Your task to perform on an android device: open wifi settings Image 0: 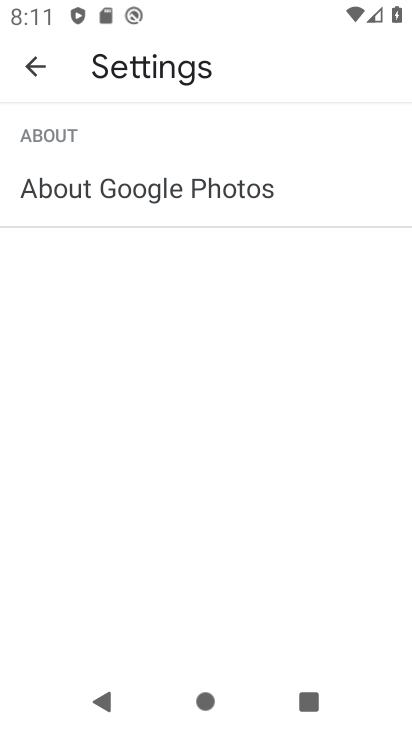
Step 0: press home button
Your task to perform on an android device: open wifi settings Image 1: 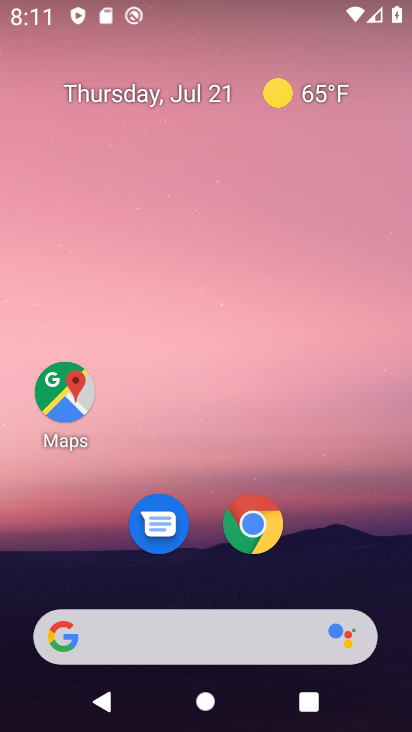
Step 1: drag from (185, 610) to (152, 76)
Your task to perform on an android device: open wifi settings Image 2: 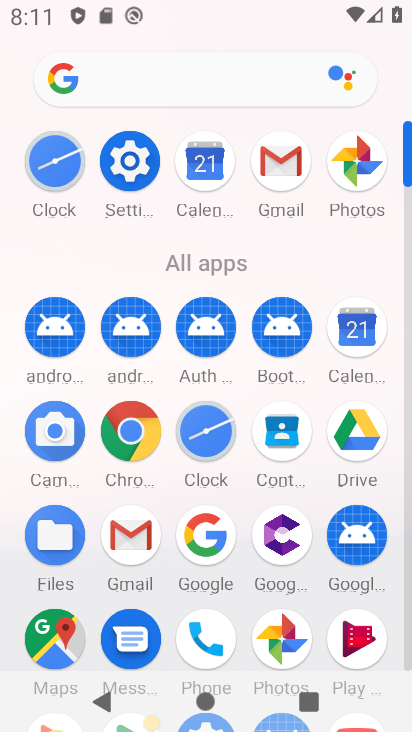
Step 2: click (128, 177)
Your task to perform on an android device: open wifi settings Image 3: 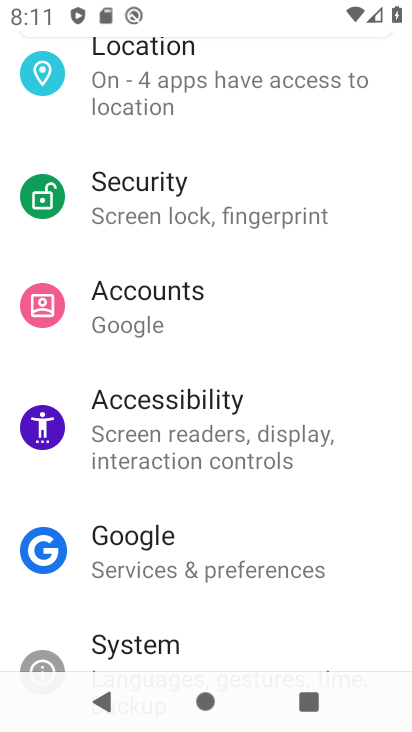
Step 3: drag from (170, 98) to (174, 639)
Your task to perform on an android device: open wifi settings Image 4: 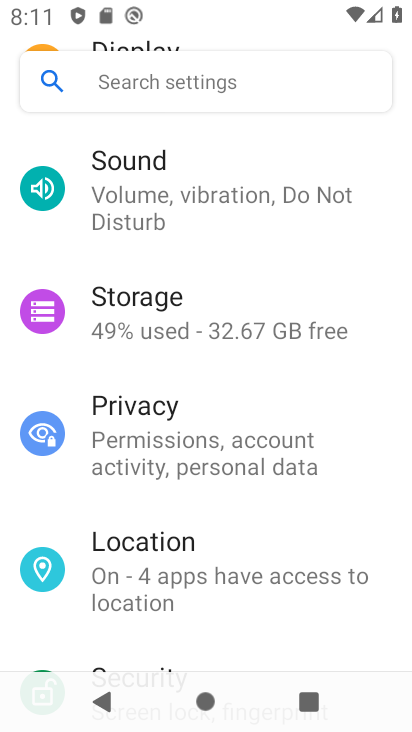
Step 4: drag from (149, 184) to (127, 724)
Your task to perform on an android device: open wifi settings Image 5: 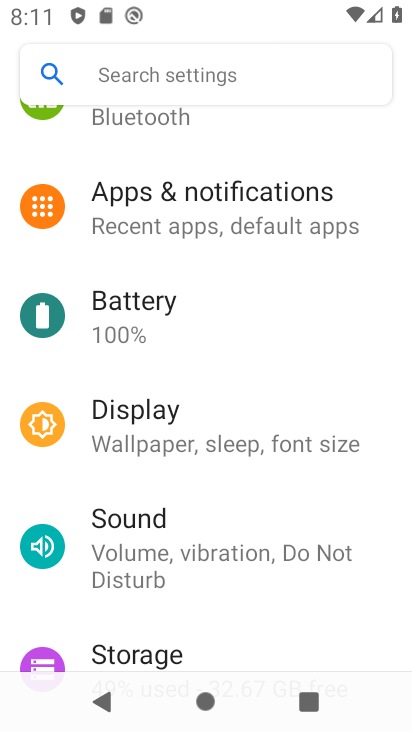
Step 5: drag from (152, 200) to (147, 674)
Your task to perform on an android device: open wifi settings Image 6: 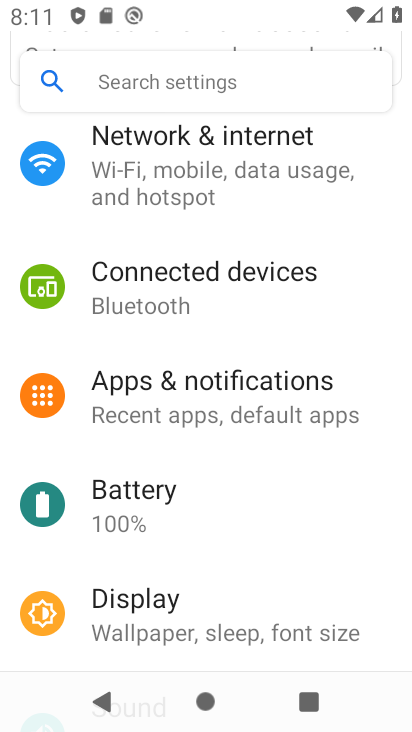
Step 6: click (141, 157)
Your task to perform on an android device: open wifi settings Image 7: 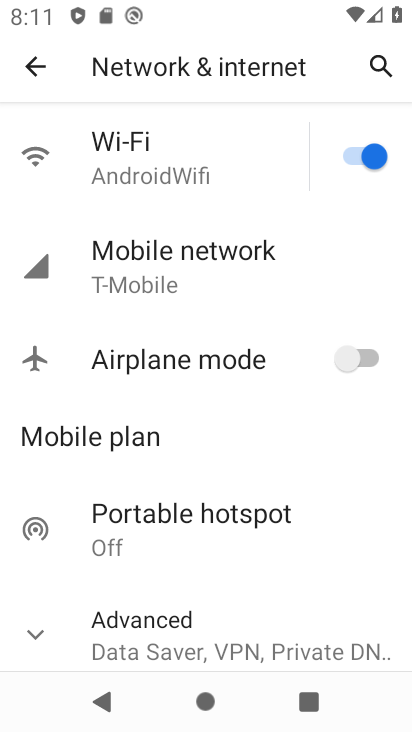
Step 7: click (141, 157)
Your task to perform on an android device: open wifi settings Image 8: 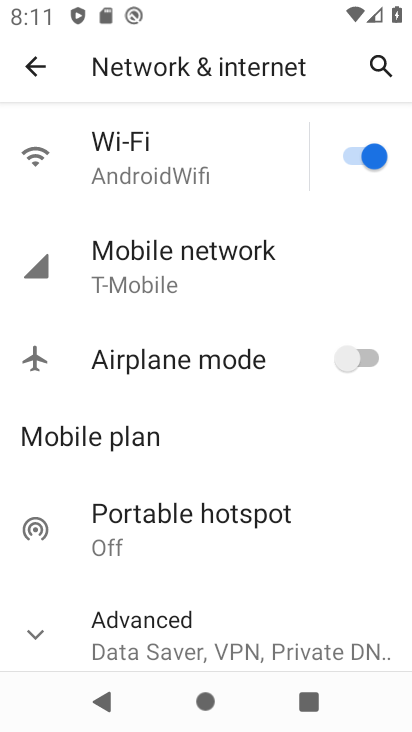
Step 8: click (141, 157)
Your task to perform on an android device: open wifi settings Image 9: 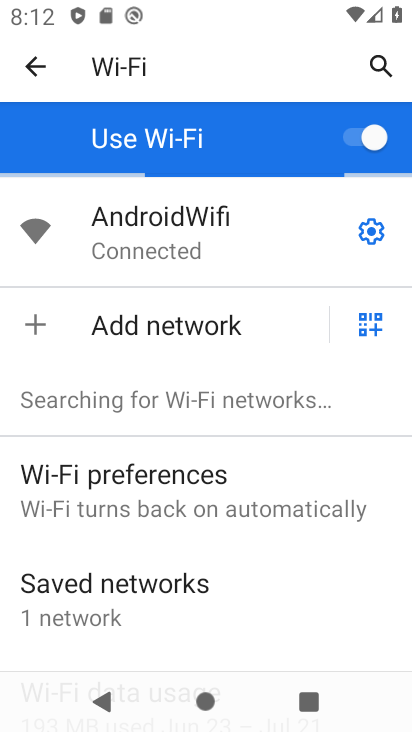
Step 9: task complete